Your task to perform on an android device: set the stopwatch Image 0: 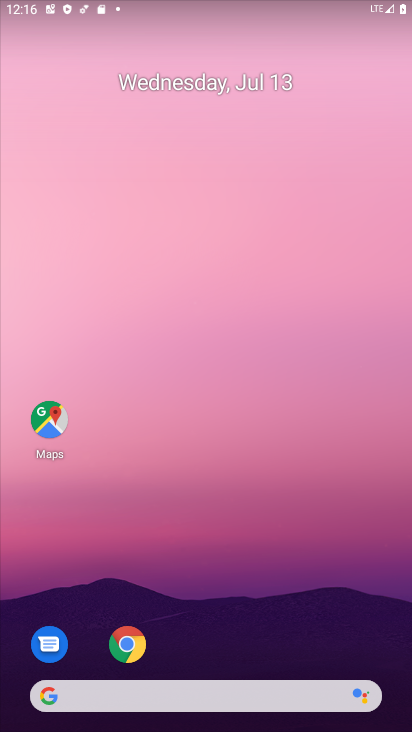
Step 0: drag from (211, 614) to (246, 158)
Your task to perform on an android device: set the stopwatch Image 1: 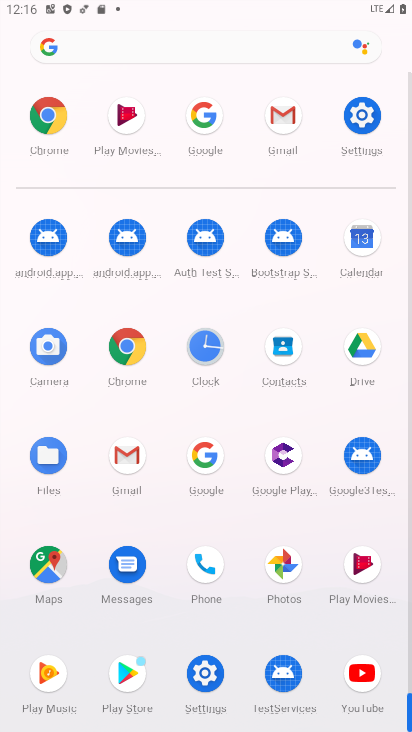
Step 1: click (208, 340)
Your task to perform on an android device: set the stopwatch Image 2: 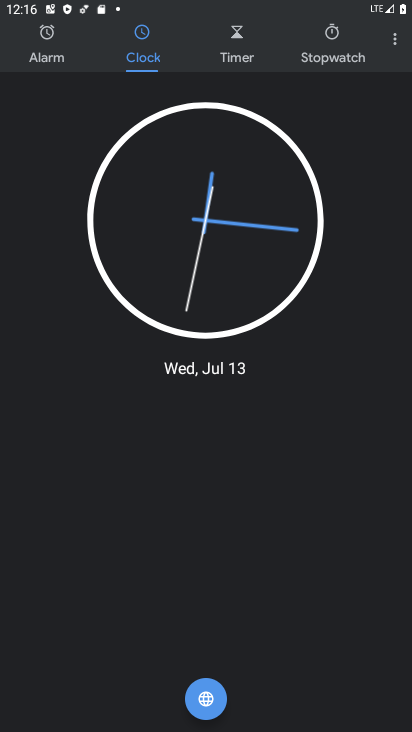
Step 2: click (326, 50)
Your task to perform on an android device: set the stopwatch Image 3: 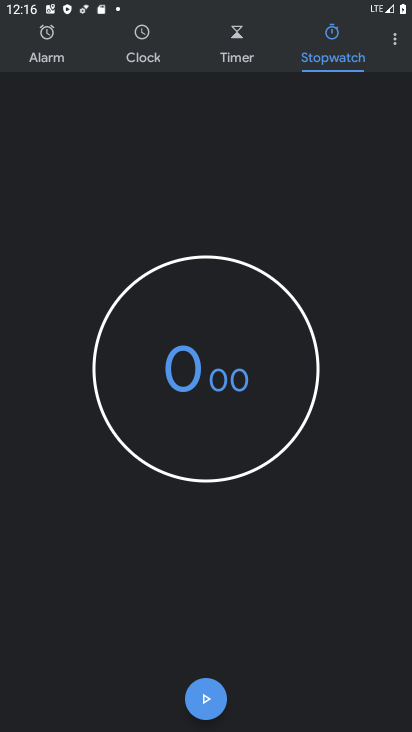
Step 3: click (210, 705)
Your task to perform on an android device: set the stopwatch Image 4: 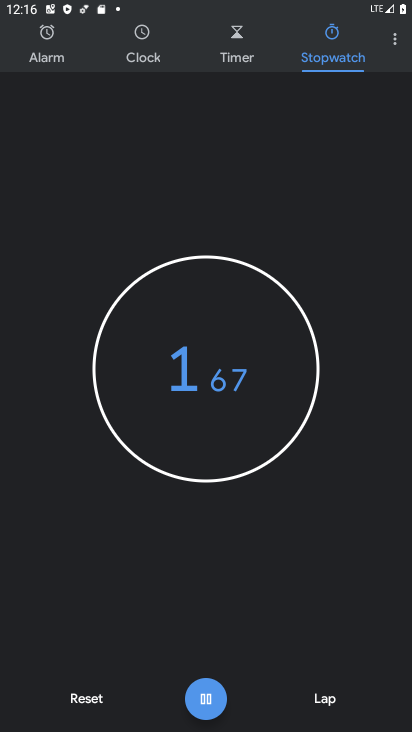
Step 4: click (210, 705)
Your task to perform on an android device: set the stopwatch Image 5: 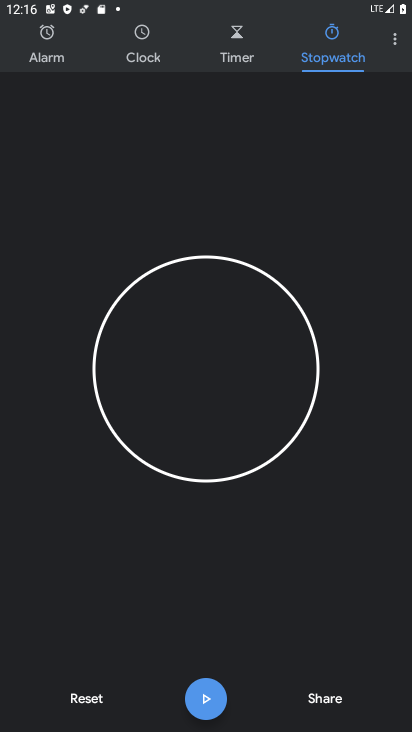
Step 5: task complete